Your task to perform on an android device: uninstall "Microsoft Authenticator" Image 0: 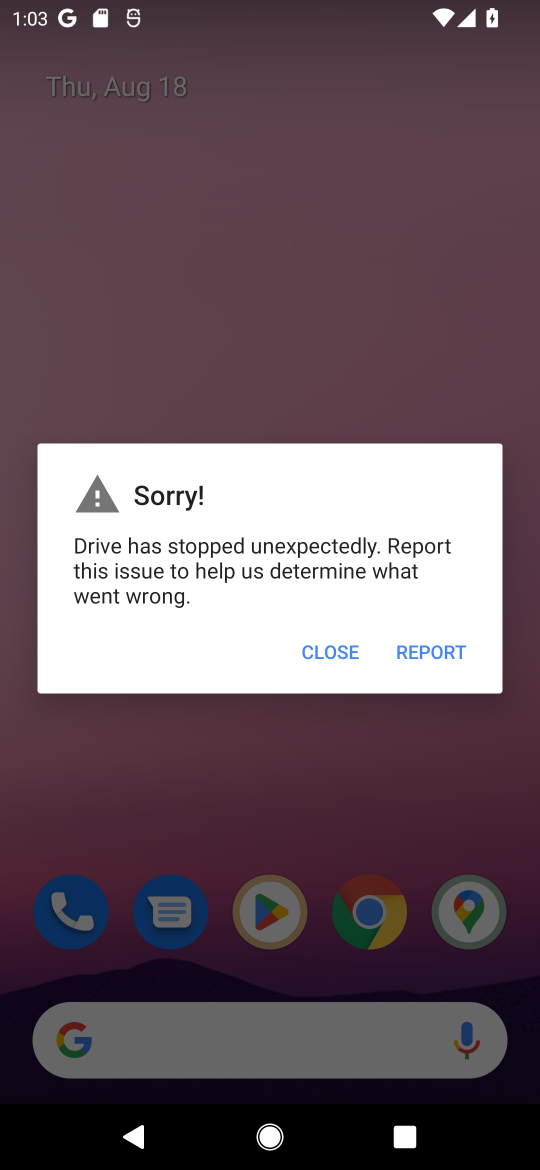
Step 0: click (297, 654)
Your task to perform on an android device: uninstall "Microsoft Authenticator" Image 1: 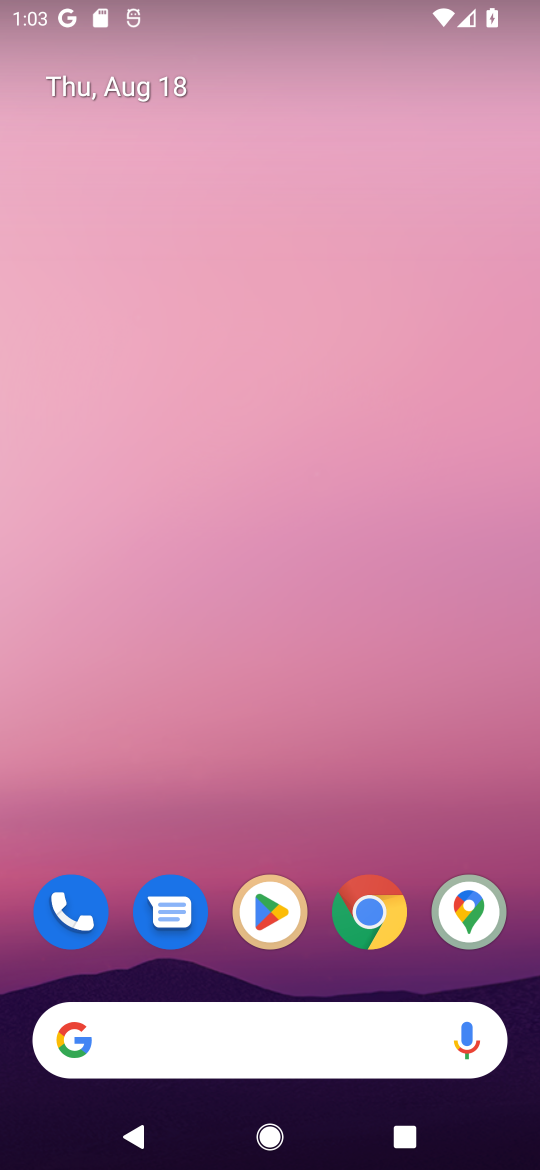
Step 1: click (265, 893)
Your task to perform on an android device: uninstall "Microsoft Authenticator" Image 2: 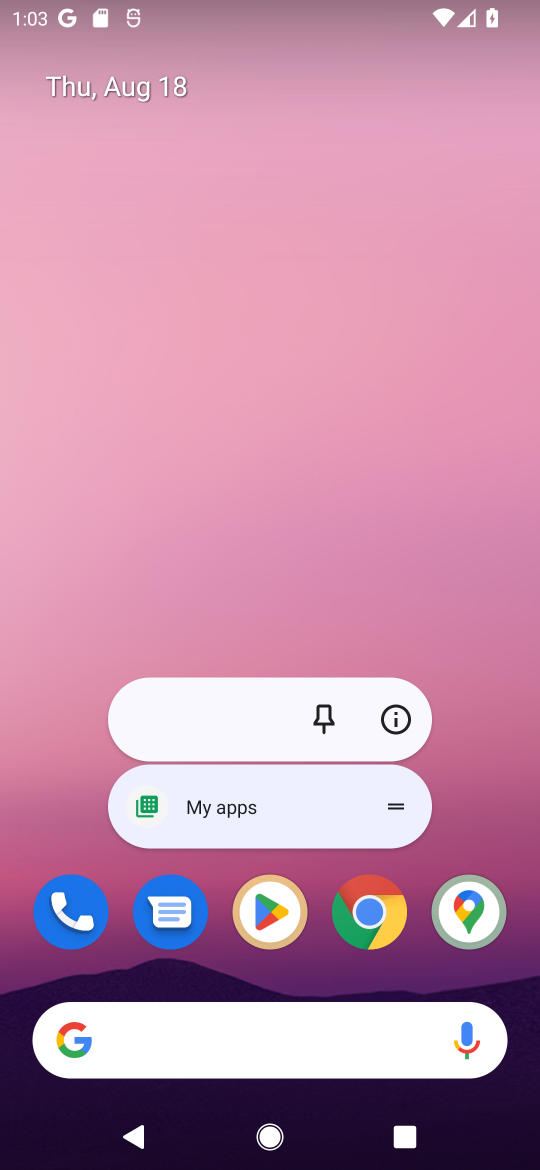
Step 2: click (267, 908)
Your task to perform on an android device: uninstall "Microsoft Authenticator" Image 3: 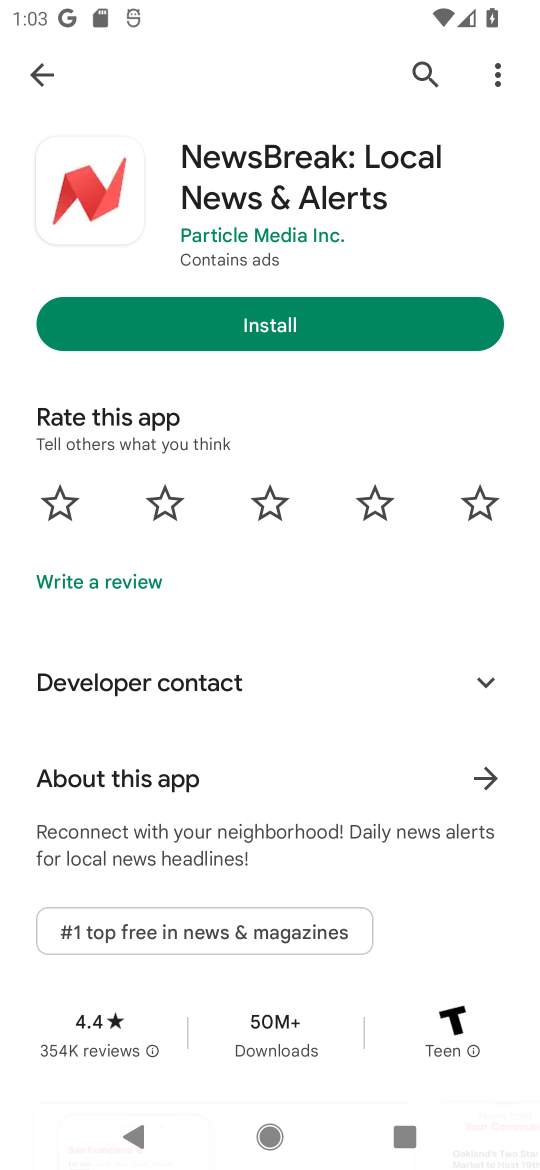
Step 3: click (410, 68)
Your task to perform on an android device: uninstall "Microsoft Authenticator" Image 4: 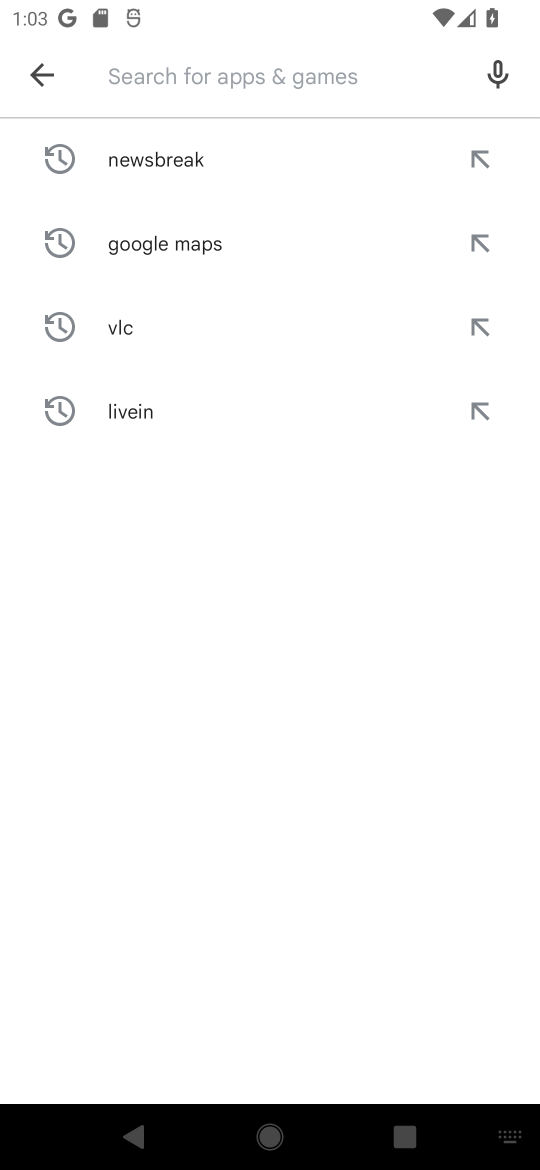
Step 4: click (94, 85)
Your task to perform on an android device: uninstall "Microsoft Authenticator" Image 5: 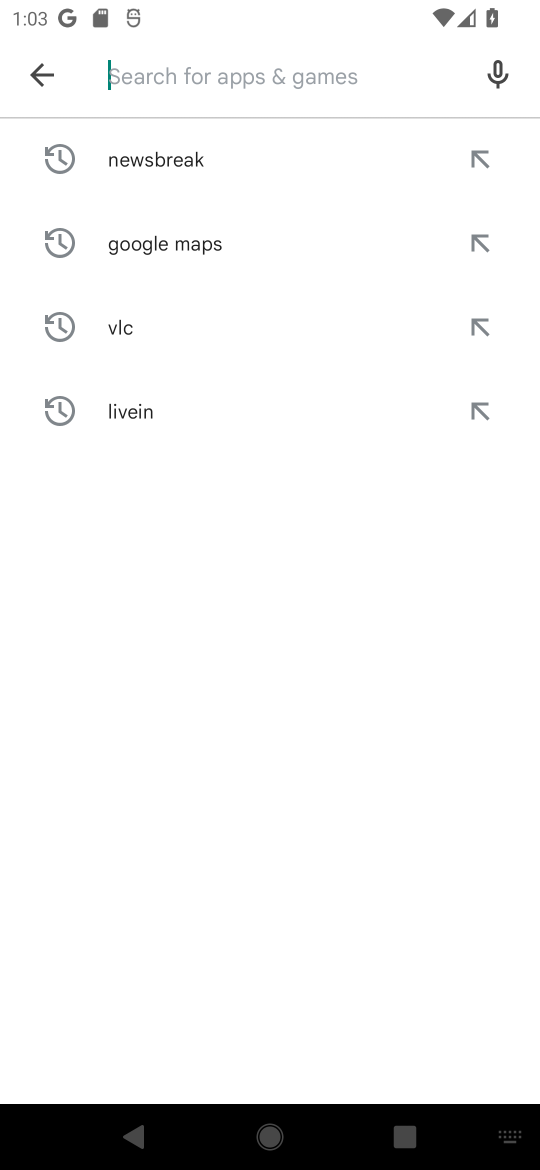
Step 5: click (170, 41)
Your task to perform on an android device: uninstall "Microsoft Authenticator" Image 6: 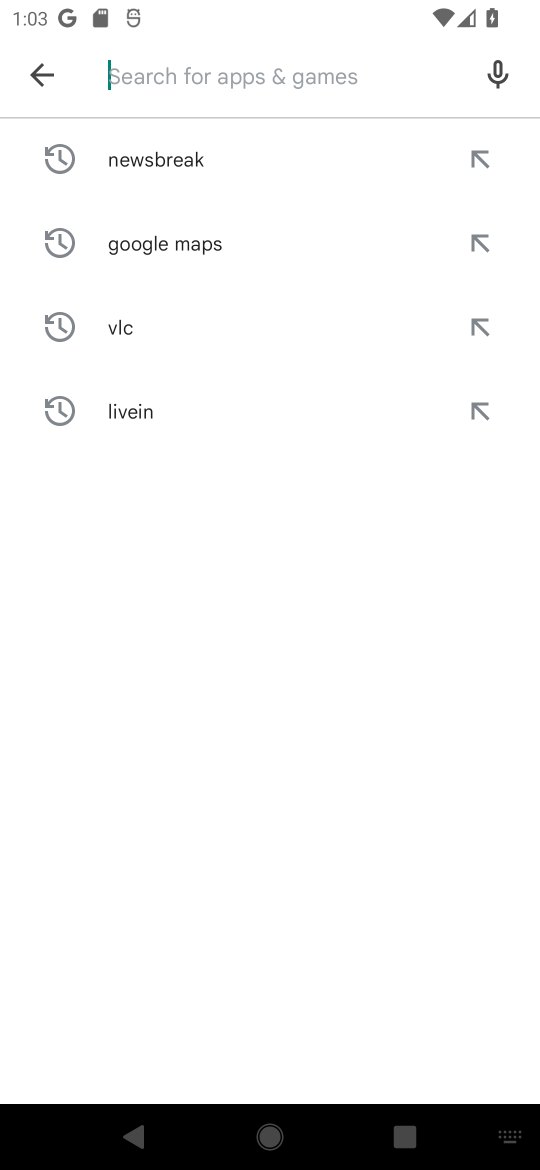
Step 6: type "Microsoft Authenticator"
Your task to perform on an android device: uninstall "Microsoft Authenticator" Image 7: 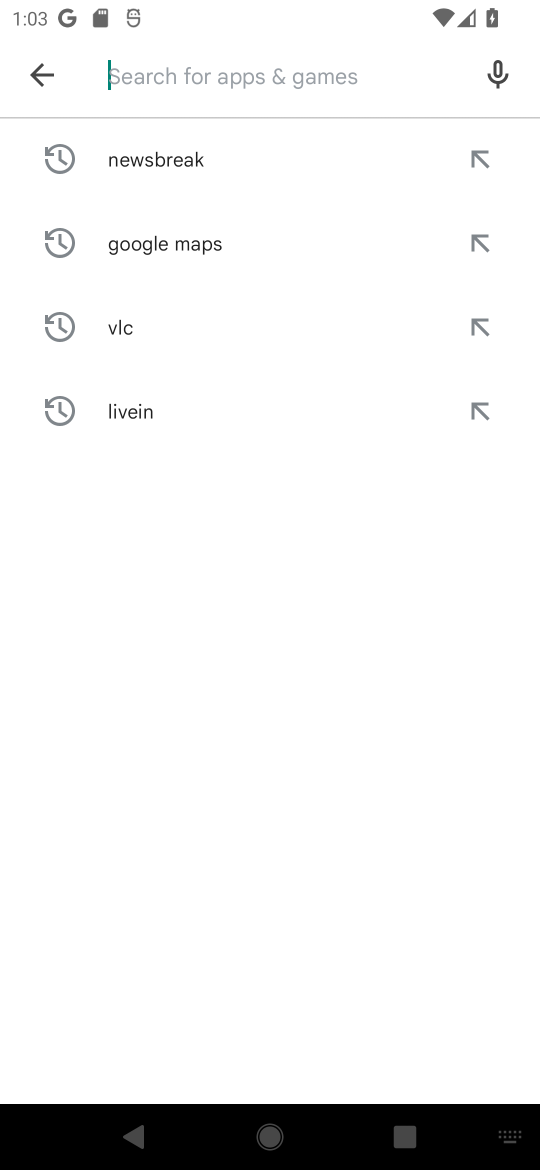
Step 7: click (340, 663)
Your task to perform on an android device: uninstall "Microsoft Authenticator" Image 8: 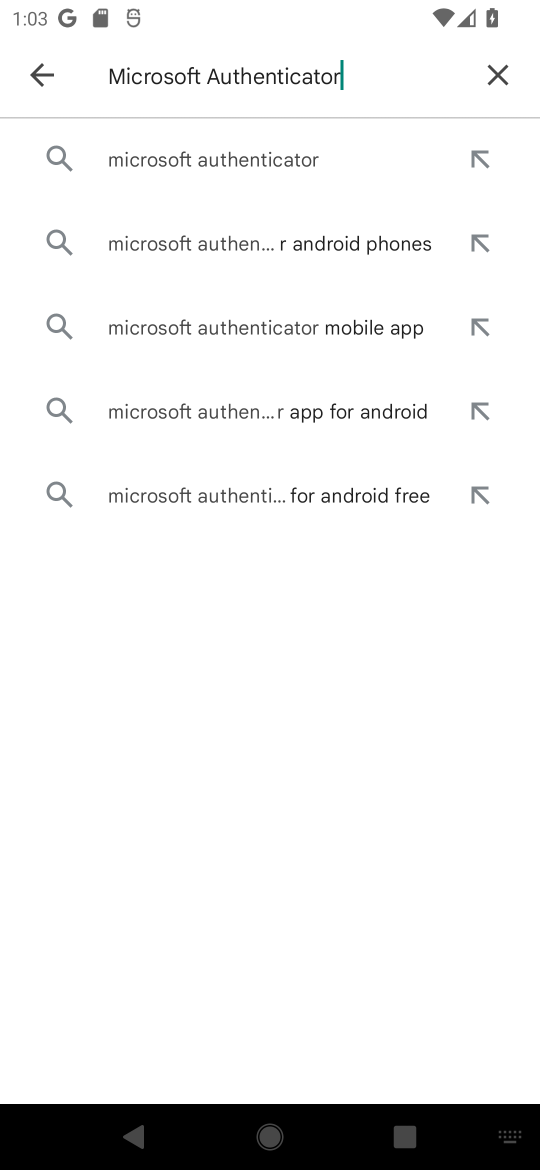
Step 8: click (265, 143)
Your task to perform on an android device: uninstall "Microsoft Authenticator" Image 9: 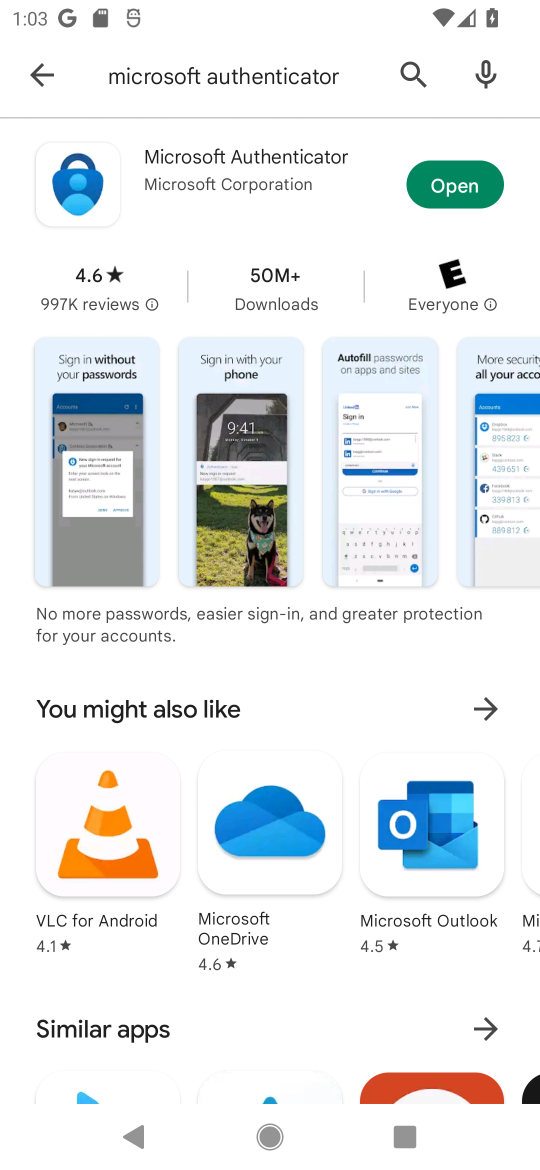
Step 9: click (272, 175)
Your task to perform on an android device: uninstall "Microsoft Authenticator" Image 10: 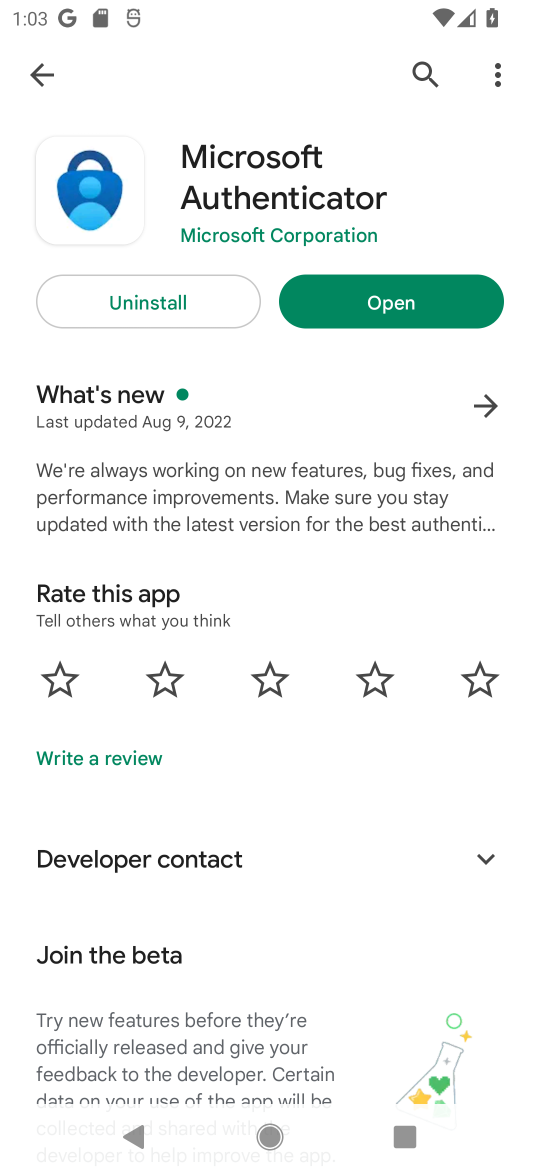
Step 10: click (183, 288)
Your task to perform on an android device: uninstall "Microsoft Authenticator" Image 11: 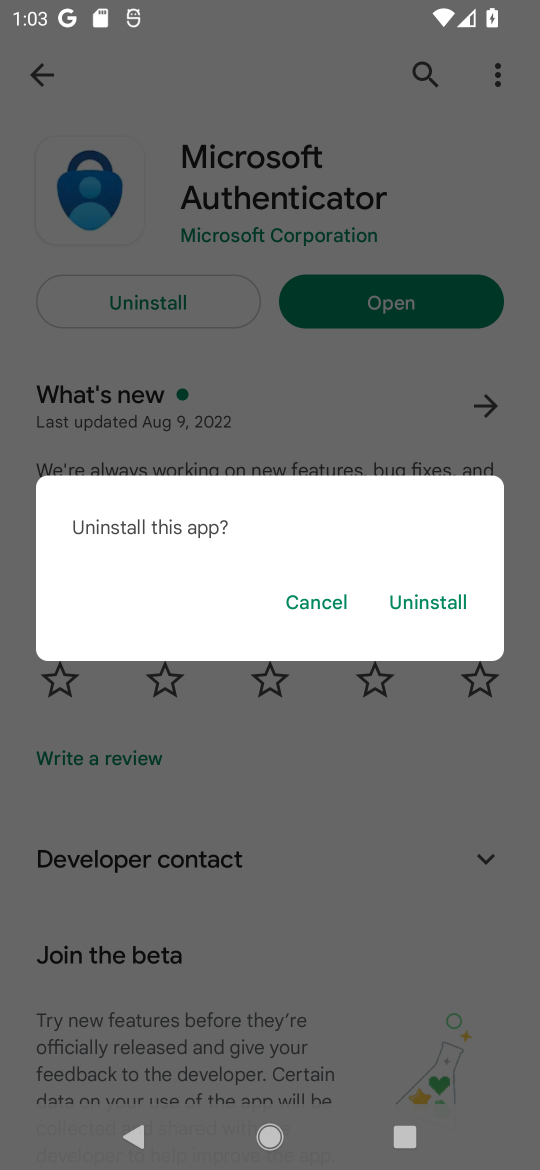
Step 11: click (463, 606)
Your task to perform on an android device: uninstall "Microsoft Authenticator" Image 12: 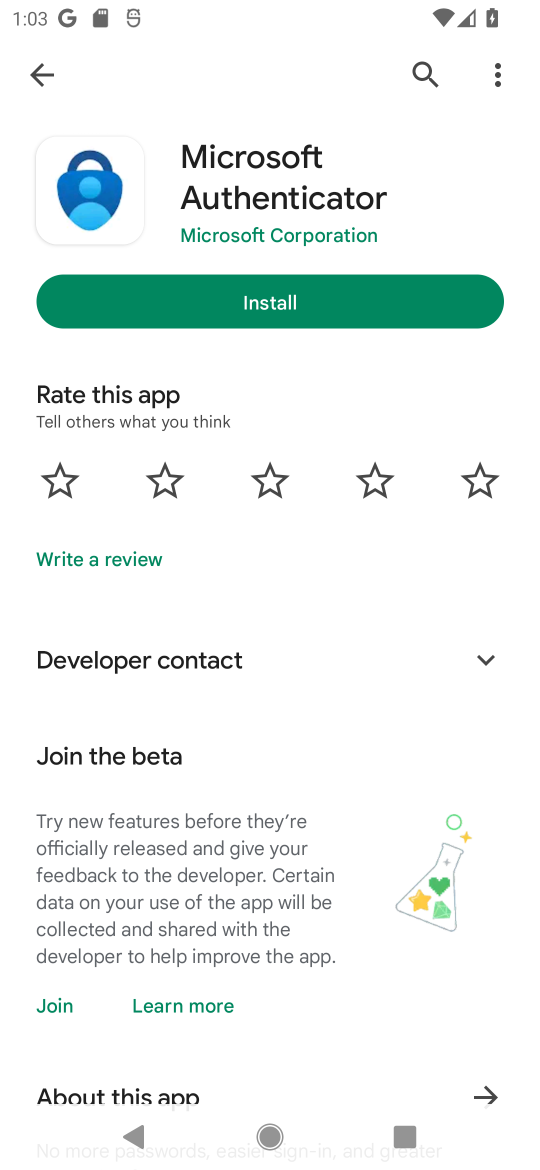
Step 12: task complete